Your task to perform on an android device: Go to Google maps Image 0: 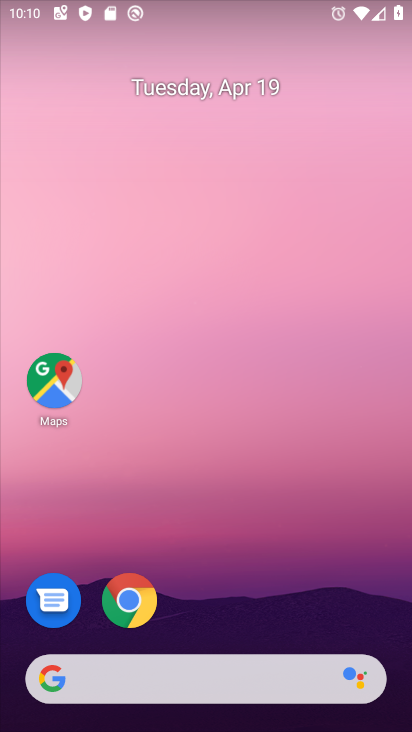
Step 0: drag from (268, 335) to (279, 0)
Your task to perform on an android device: Go to Google maps Image 1: 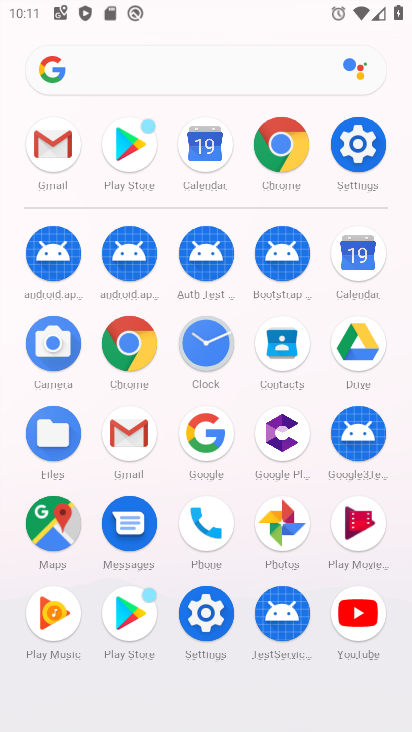
Step 1: click (50, 523)
Your task to perform on an android device: Go to Google maps Image 2: 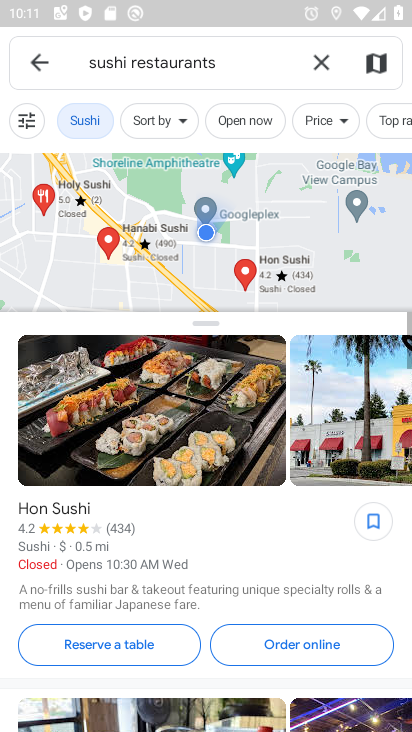
Step 2: click (318, 58)
Your task to perform on an android device: Go to Google maps Image 3: 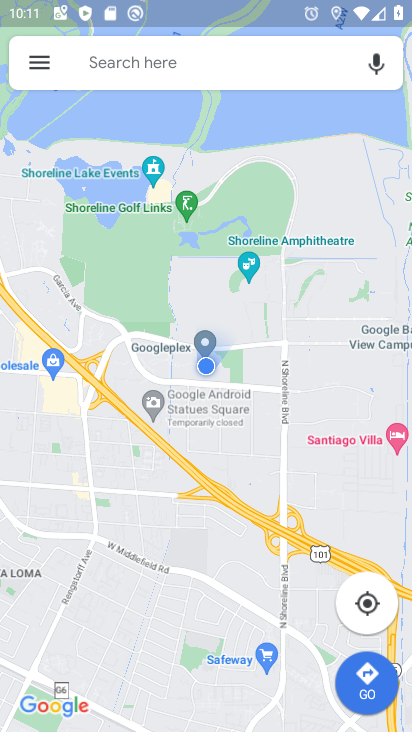
Step 3: task complete